Your task to perform on an android device: turn on bluetooth scan Image 0: 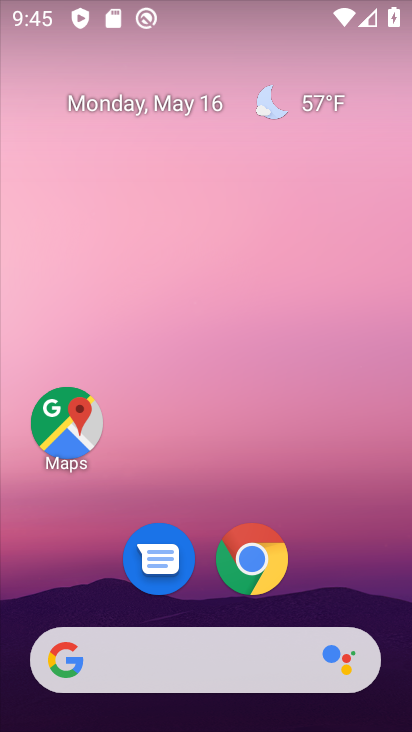
Step 0: drag from (351, 586) to (296, 97)
Your task to perform on an android device: turn on bluetooth scan Image 1: 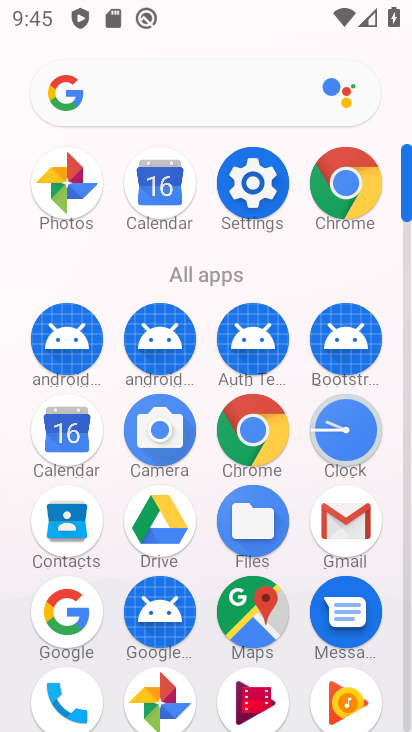
Step 1: click (260, 180)
Your task to perform on an android device: turn on bluetooth scan Image 2: 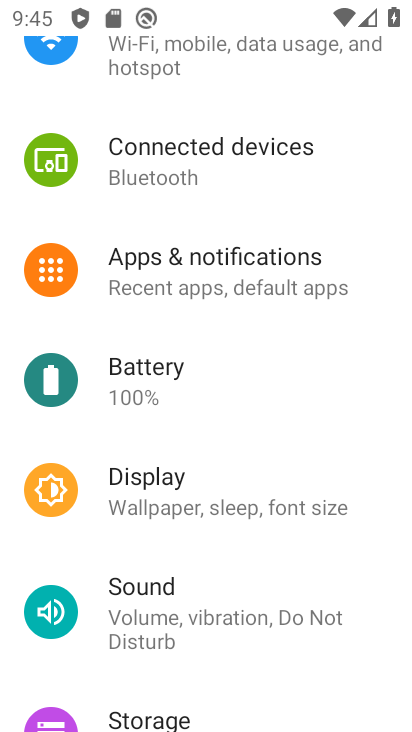
Step 2: drag from (265, 616) to (273, 731)
Your task to perform on an android device: turn on bluetooth scan Image 3: 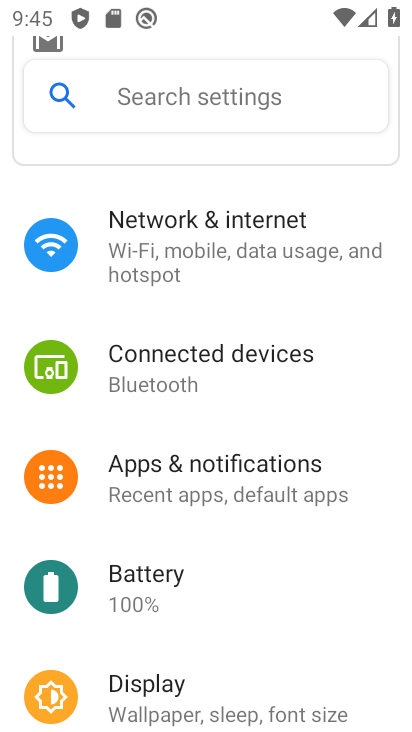
Step 3: drag from (186, 308) to (195, 532)
Your task to perform on an android device: turn on bluetooth scan Image 4: 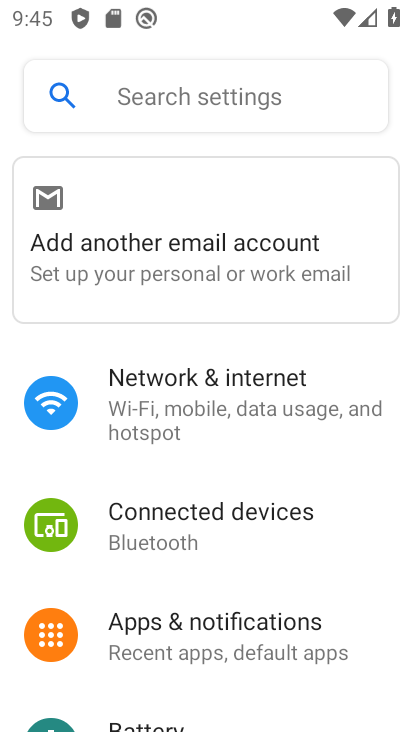
Step 4: drag from (227, 567) to (271, 221)
Your task to perform on an android device: turn on bluetooth scan Image 5: 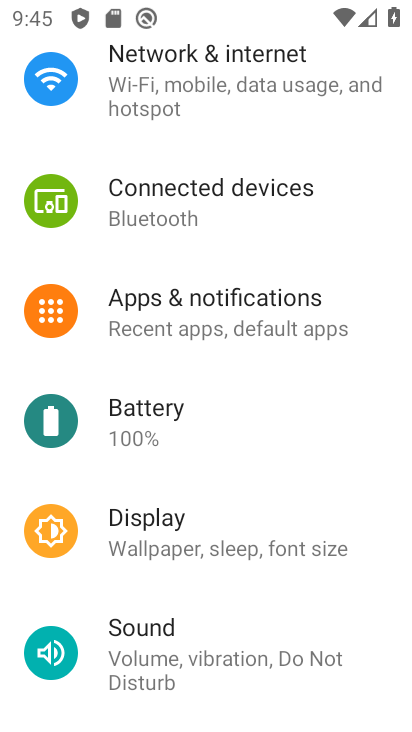
Step 5: drag from (260, 614) to (314, 168)
Your task to perform on an android device: turn on bluetooth scan Image 6: 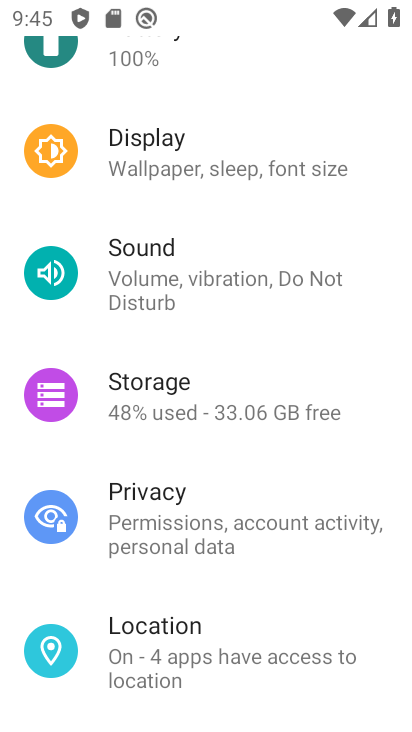
Step 6: click (204, 624)
Your task to perform on an android device: turn on bluetooth scan Image 7: 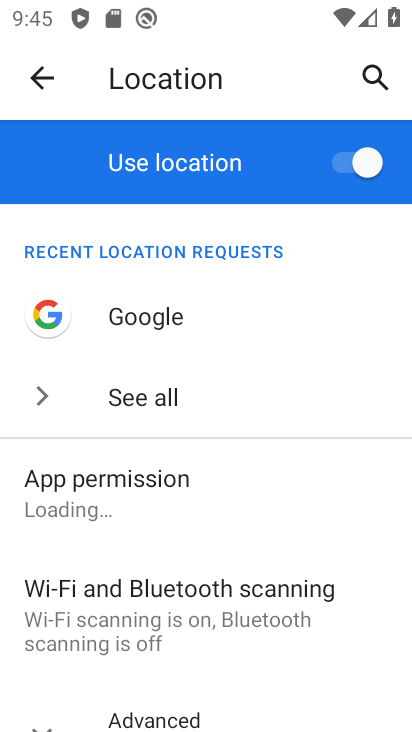
Step 7: click (145, 602)
Your task to perform on an android device: turn on bluetooth scan Image 8: 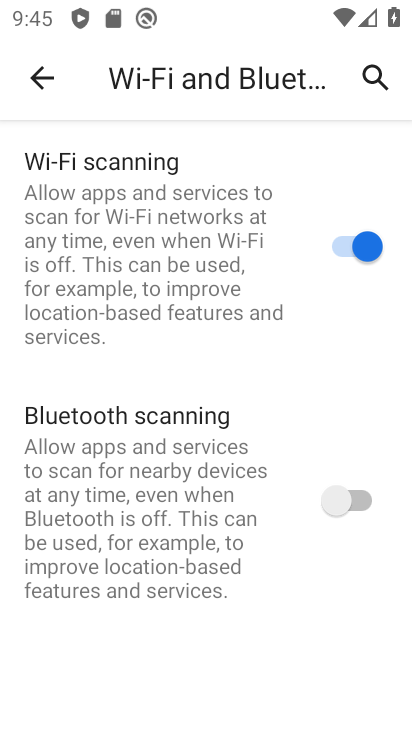
Step 8: click (302, 509)
Your task to perform on an android device: turn on bluetooth scan Image 9: 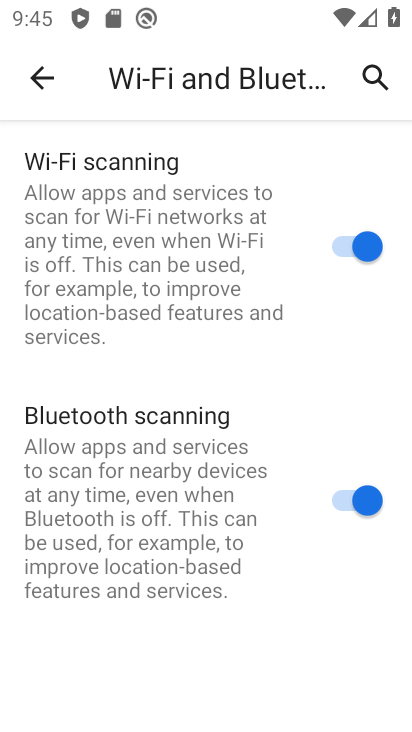
Step 9: task complete